Your task to perform on an android device: Open Yahoo.com Image 0: 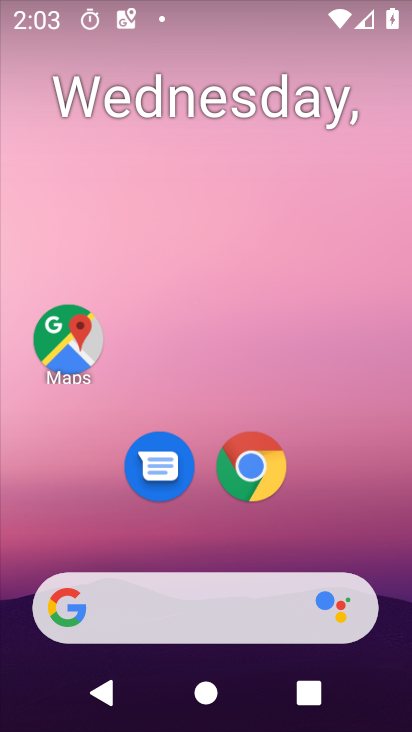
Step 0: click (250, 453)
Your task to perform on an android device: Open Yahoo.com Image 1: 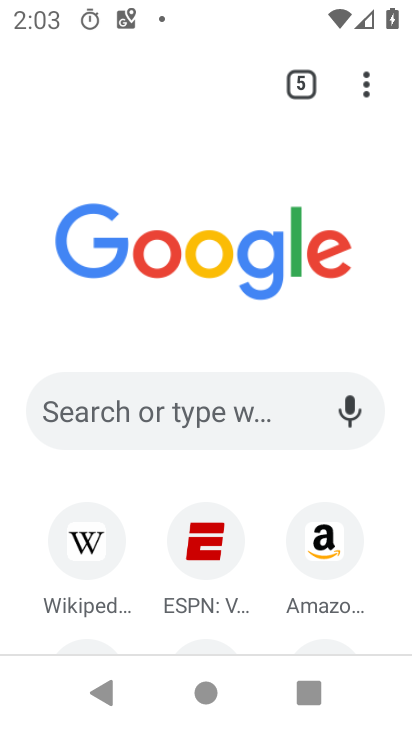
Step 1: click (301, 83)
Your task to perform on an android device: Open Yahoo.com Image 2: 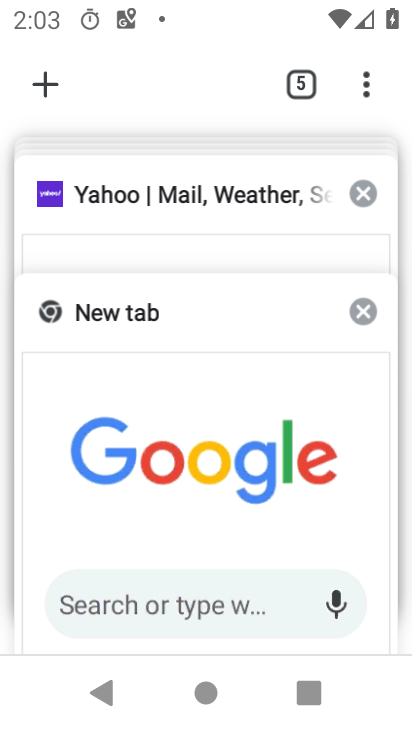
Step 2: click (211, 230)
Your task to perform on an android device: Open Yahoo.com Image 3: 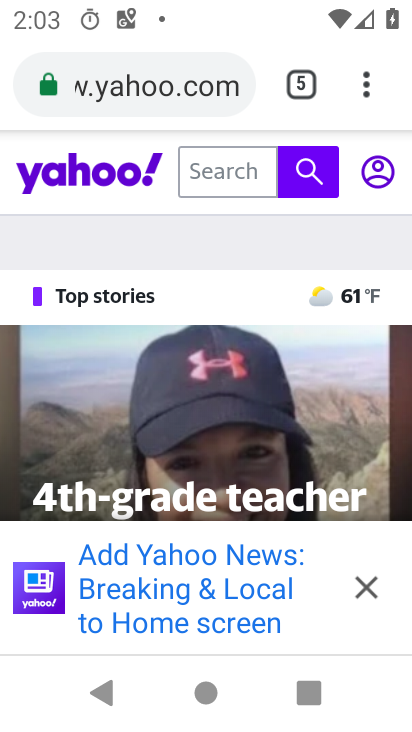
Step 3: task complete